Your task to perform on an android device: Open network settings Image 0: 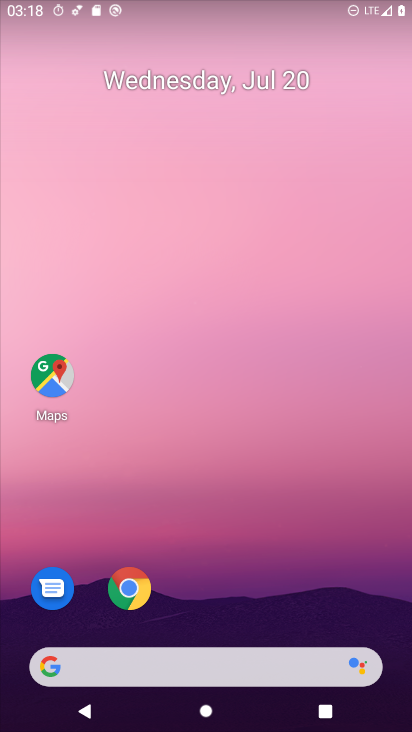
Step 0: drag from (207, 627) to (177, 134)
Your task to perform on an android device: Open network settings Image 1: 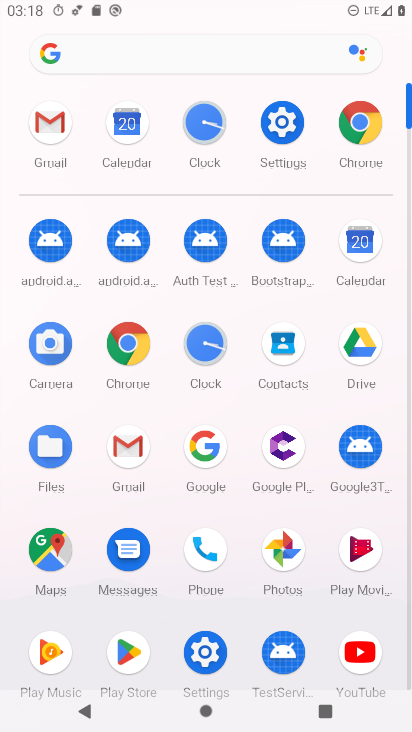
Step 1: click (198, 642)
Your task to perform on an android device: Open network settings Image 2: 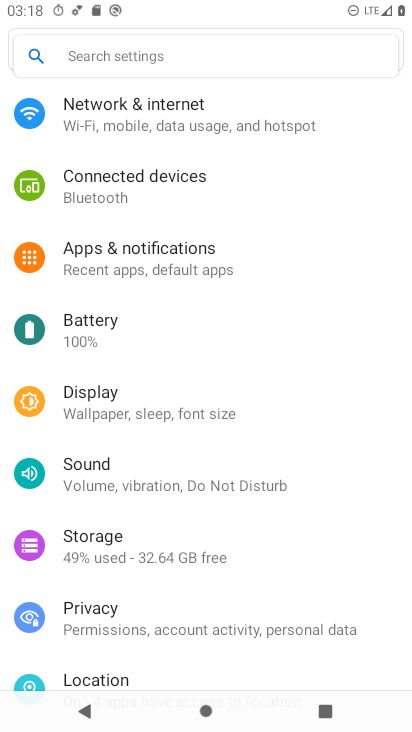
Step 2: click (104, 213)
Your task to perform on an android device: Open network settings Image 3: 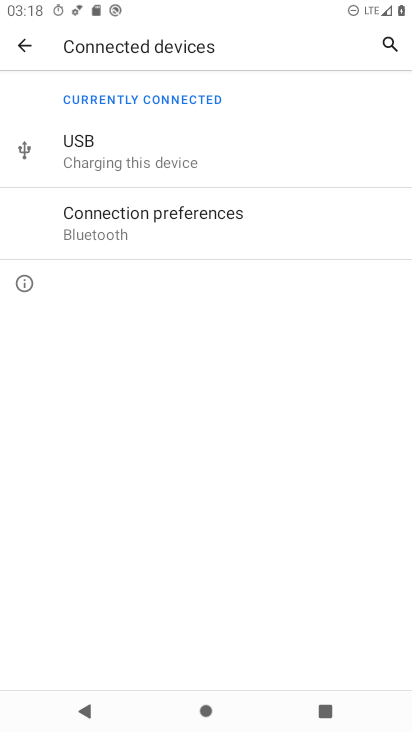
Step 3: click (27, 51)
Your task to perform on an android device: Open network settings Image 4: 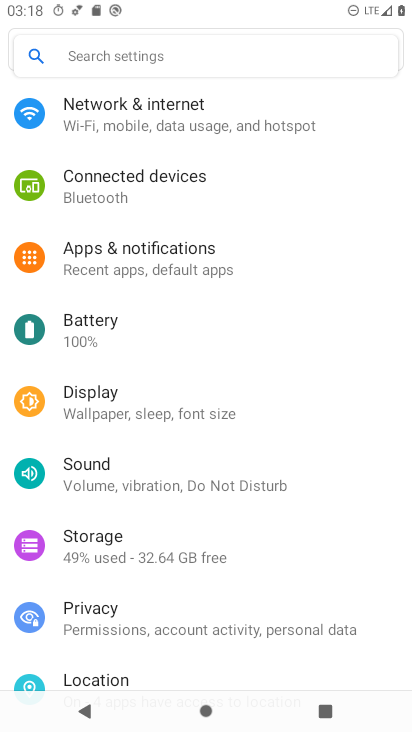
Step 4: click (151, 132)
Your task to perform on an android device: Open network settings Image 5: 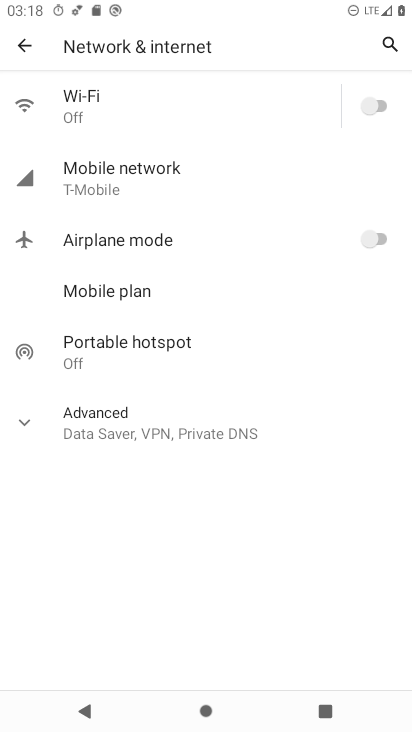
Step 5: click (141, 172)
Your task to perform on an android device: Open network settings Image 6: 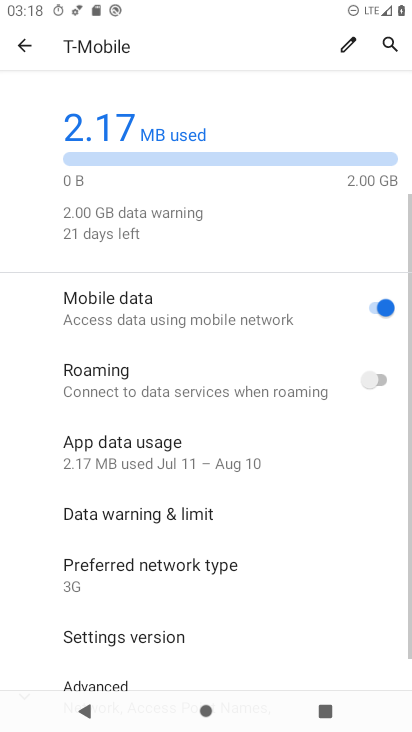
Step 6: task complete